Your task to perform on an android device: Go to eBay Image 0: 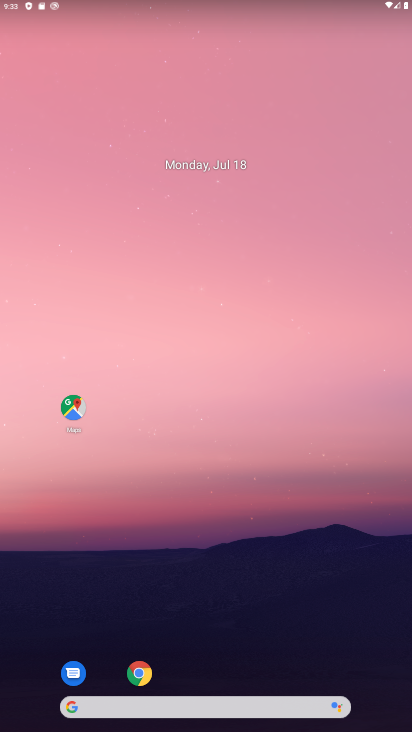
Step 0: click (145, 673)
Your task to perform on an android device: Go to eBay Image 1: 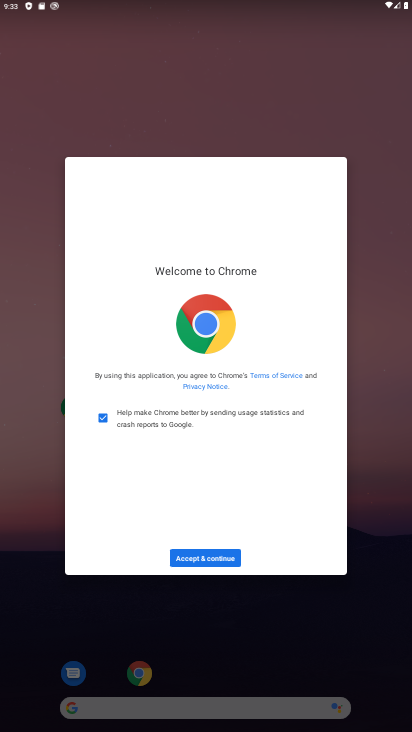
Step 1: click (228, 563)
Your task to perform on an android device: Go to eBay Image 2: 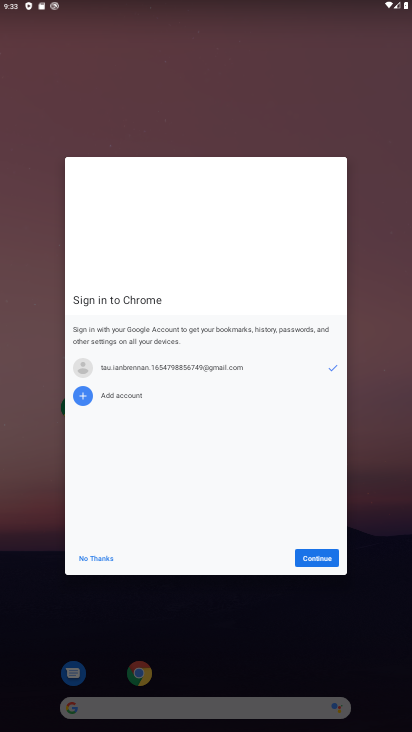
Step 2: click (300, 557)
Your task to perform on an android device: Go to eBay Image 3: 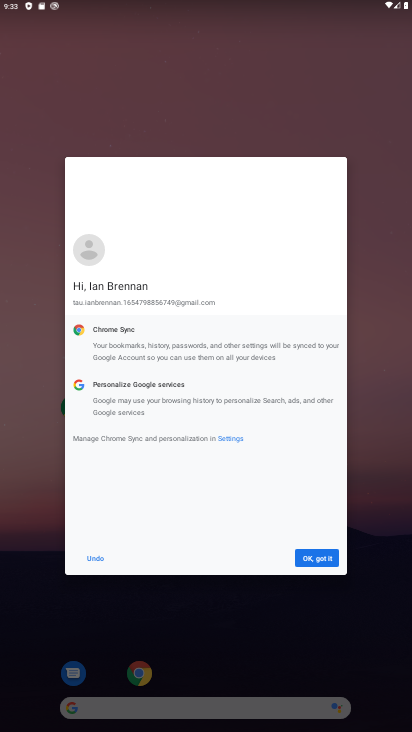
Step 3: click (300, 557)
Your task to perform on an android device: Go to eBay Image 4: 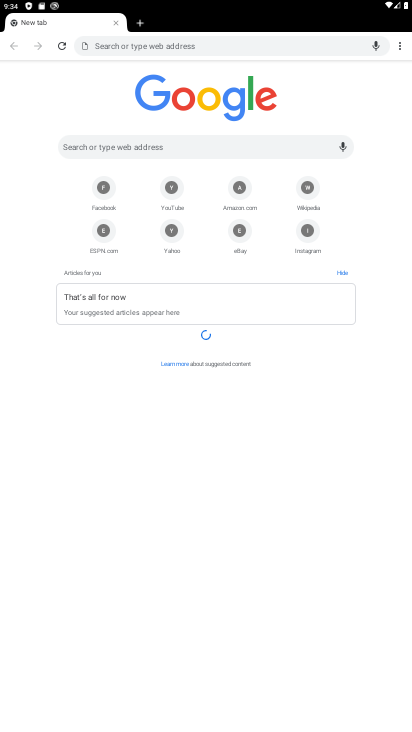
Step 4: click (237, 231)
Your task to perform on an android device: Go to eBay Image 5: 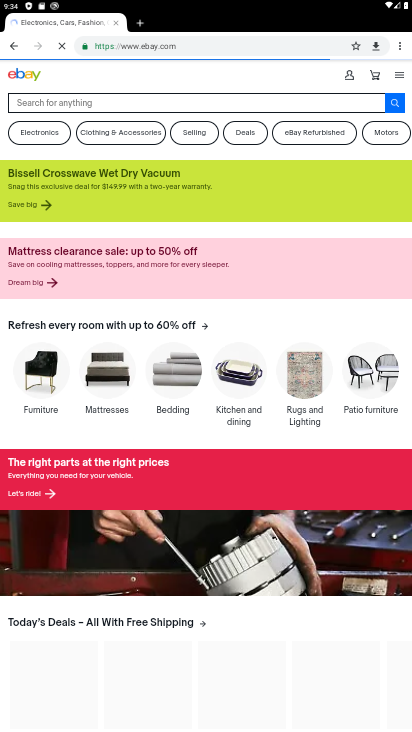
Step 5: task complete